Your task to perform on an android device: open app "Instagram" (install if not already installed) and enter user name: "nobler@yahoo.com" and password: "foraging" Image 0: 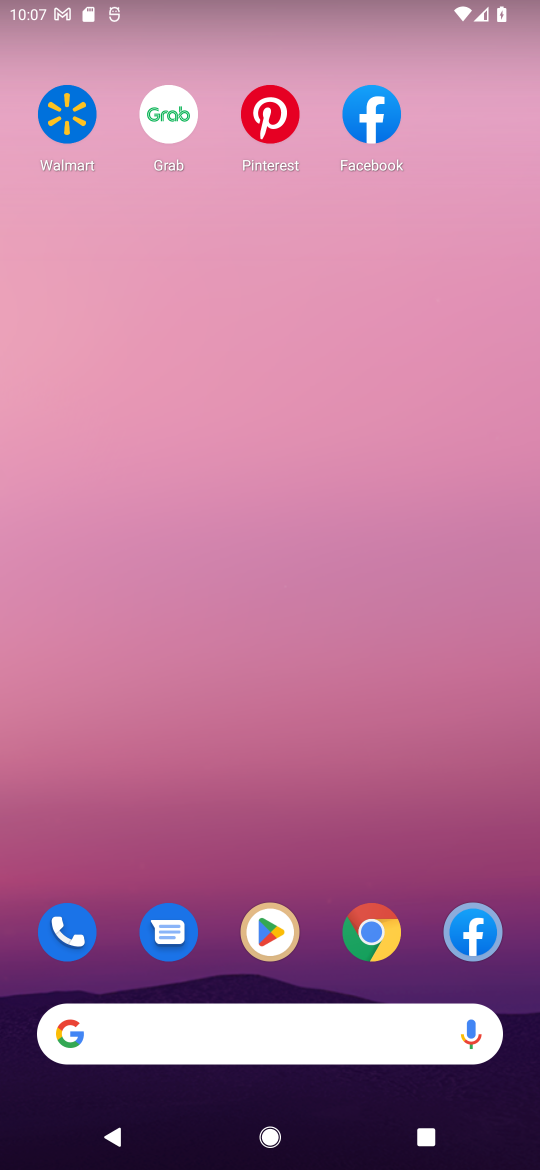
Step 0: click (252, 934)
Your task to perform on an android device: open app "Instagram" (install if not already installed) and enter user name: "nobler@yahoo.com" and password: "foraging" Image 1: 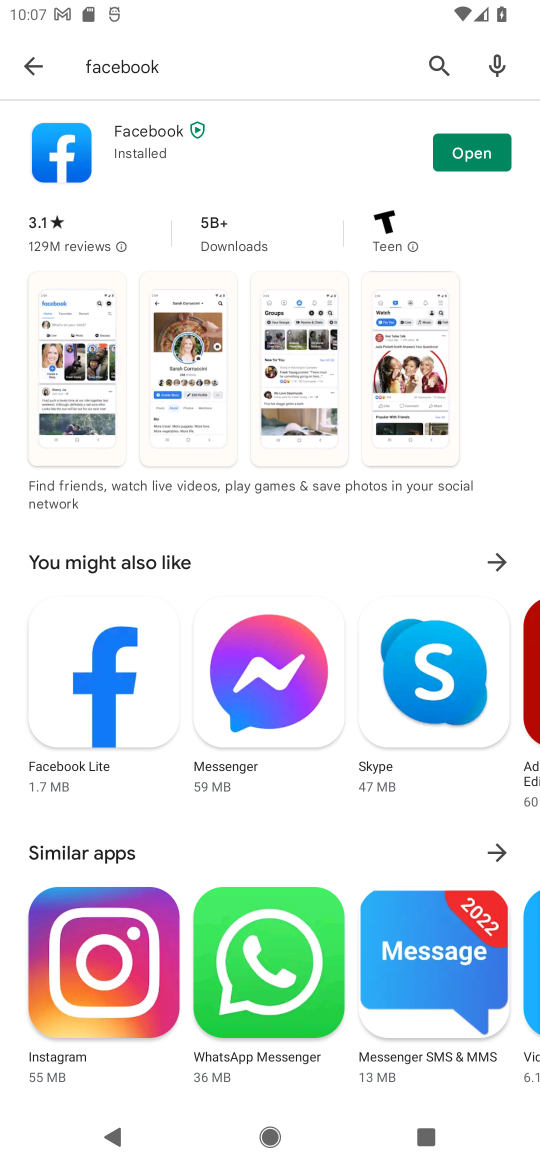
Step 1: click (435, 67)
Your task to perform on an android device: open app "Instagram" (install if not already installed) and enter user name: "nobler@yahoo.com" and password: "foraging" Image 2: 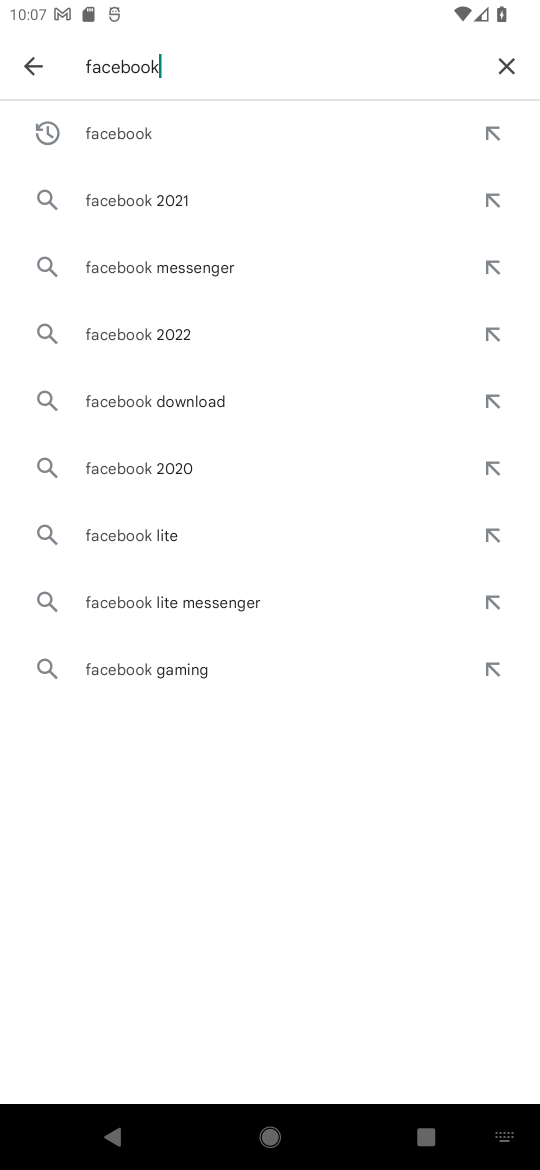
Step 2: click (504, 76)
Your task to perform on an android device: open app "Instagram" (install if not already installed) and enter user name: "nobler@yahoo.com" and password: "foraging" Image 3: 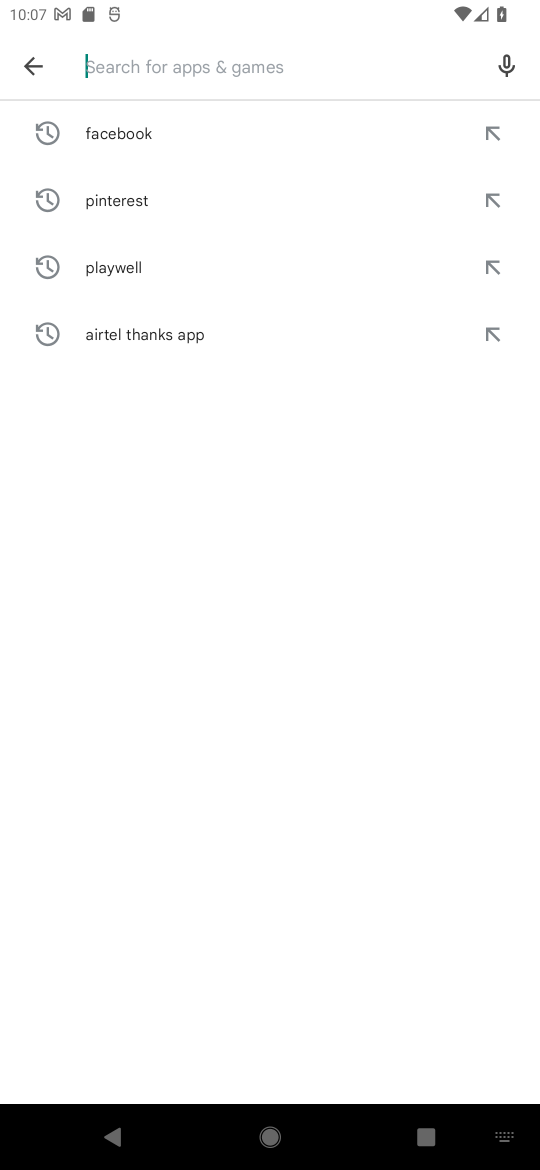
Step 3: type "instagram"
Your task to perform on an android device: open app "Instagram" (install if not already installed) and enter user name: "nobler@yahoo.com" and password: "foraging" Image 4: 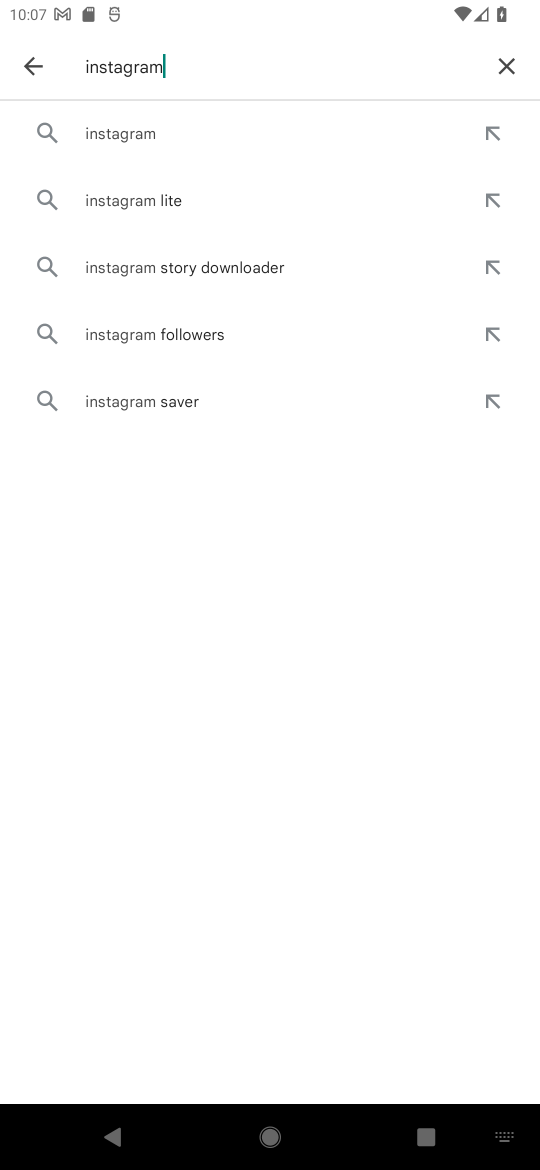
Step 4: click (132, 133)
Your task to perform on an android device: open app "Instagram" (install if not already installed) and enter user name: "nobler@yahoo.com" and password: "foraging" Image 5: 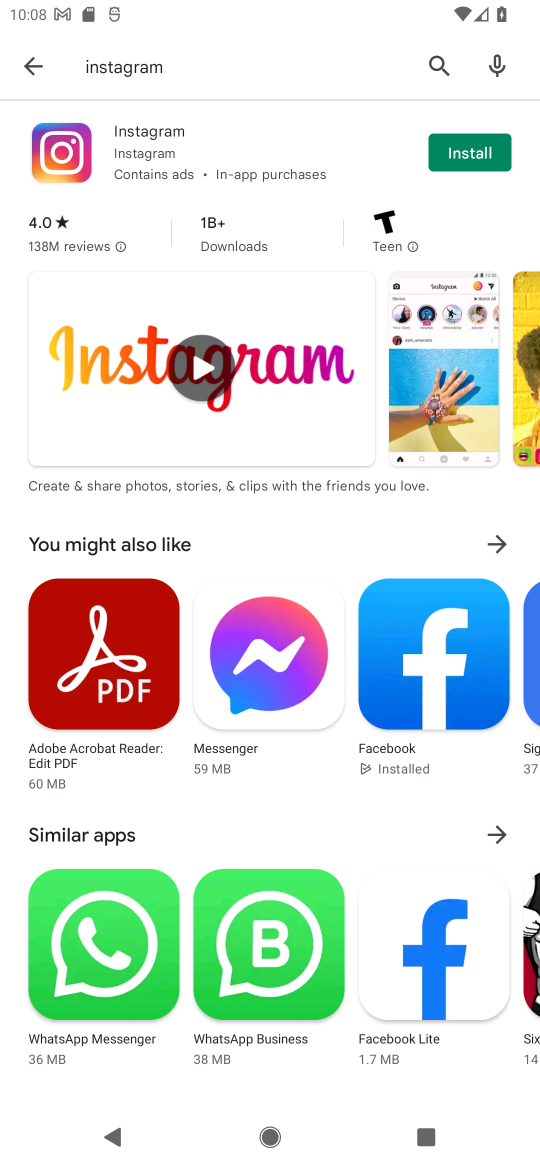
Step 5: click (462, 152)
Your task to perform on an android device: open app "Instagram" (install if not already installed) and enter user name: "nobler@yahoo.com" and password: "foraging" Image 6: 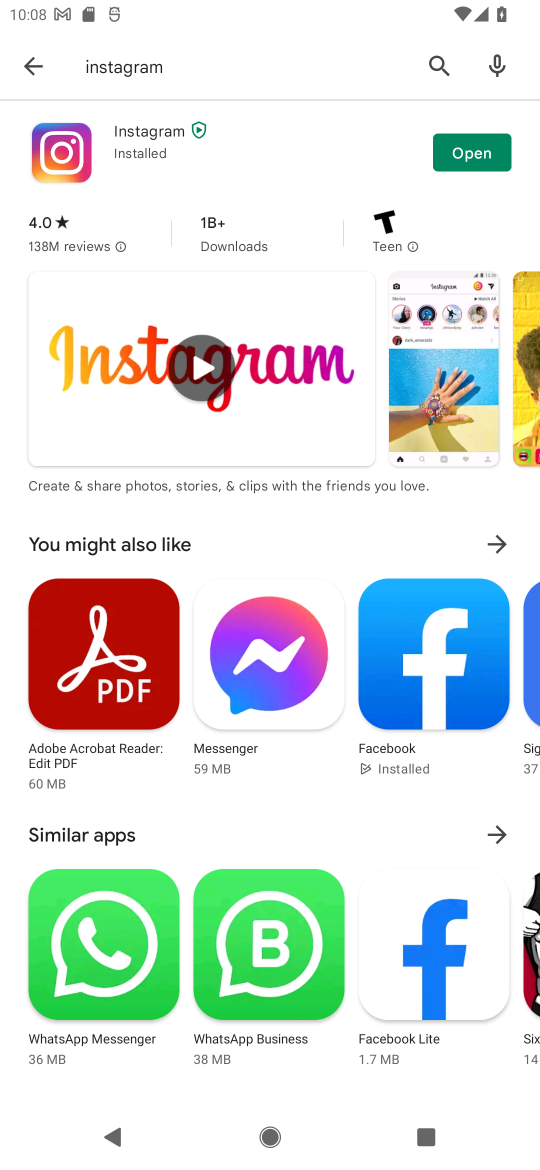
Step 6: click (453, 142)
Your task to perform on an android device: open app "Instagram" (install if not already installed) and enter user name: "nobler@yahoo.com" and password: "foraging" Image 7: 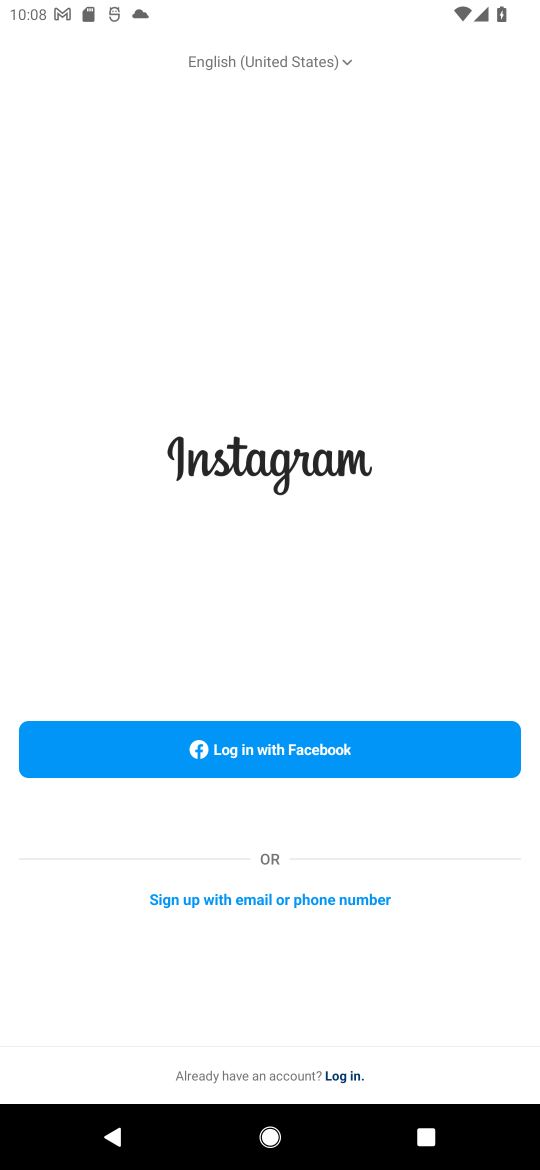
Step 7: click (350, 899)
Your task to perform on an android device: open app "Instagram" (install if not already installed) and enter user name: "nobler@yahoo.com" and password: "foraging" Image 8: 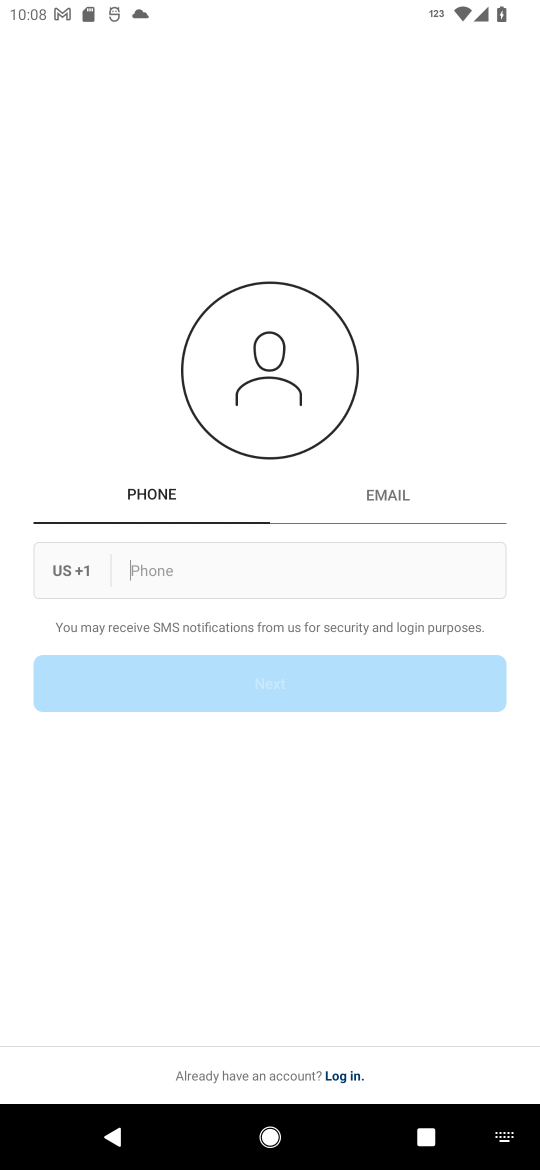
Step 8: click (375, 487)
Your task to perform on an android device: open app "Instagram" (install if not already installed) and enter user name: "nobler@yahoo.com" and password: "foraging" Image 9: 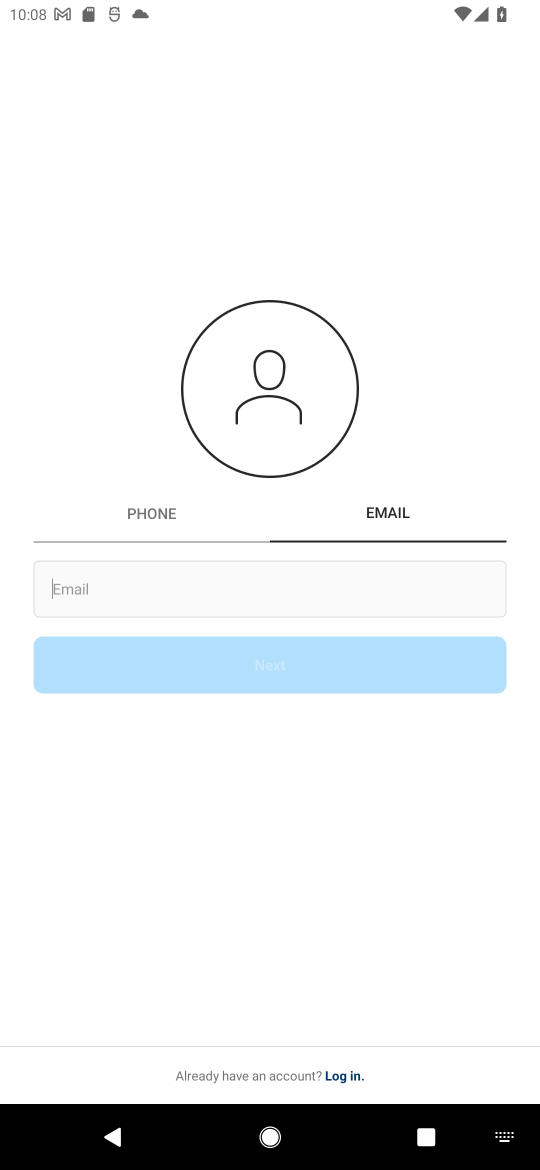
Step 9: type "nobler@yahoo.com"
Your task to perform on an android device: open app "Instagram" (install if not already installed) and enter user name: "nobler@yahoo.com" and password: "foraging" Image 10: 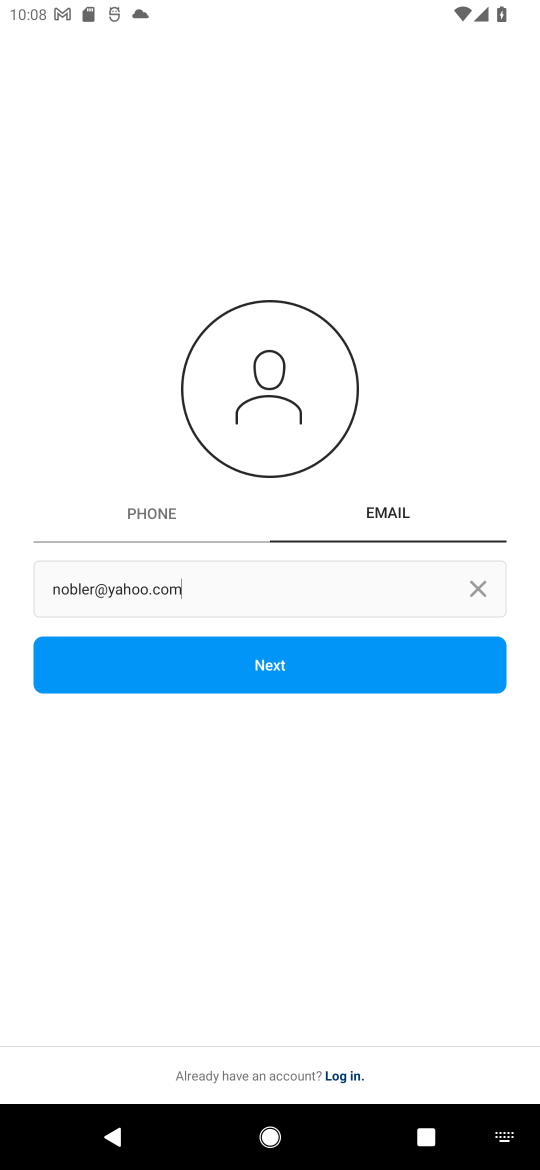
Step 10: click (311, 660)
Your task to perform on an android device: open app "Instagram" (install if not already installed) and enter user name: "nobler@yahoo.com" and password: "foraging" Image 11: 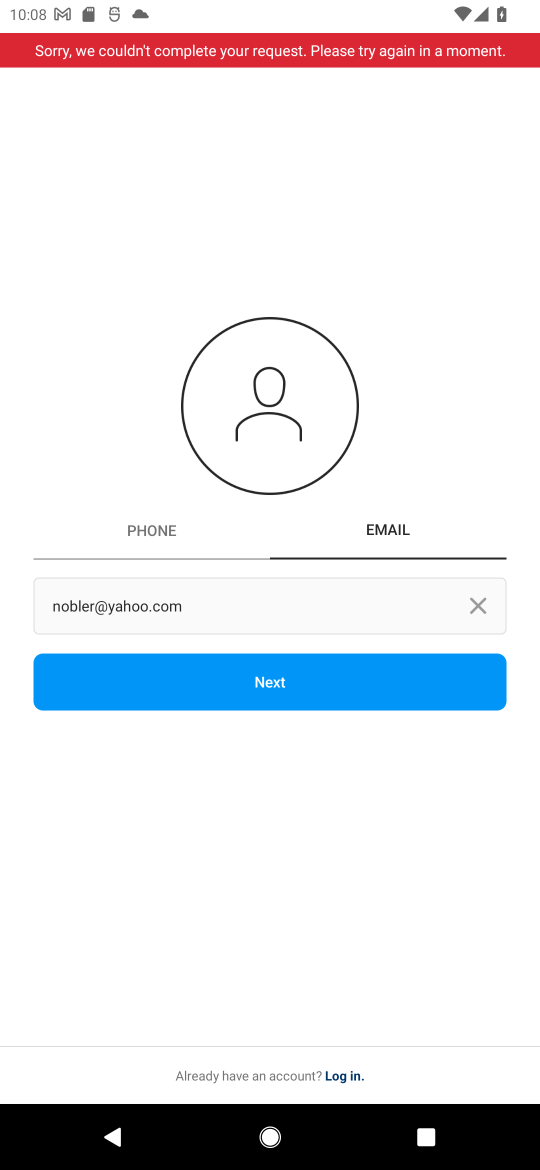
Step 11: task complete